Your task to perform on an android device: Go to Reddit.com Image 0: 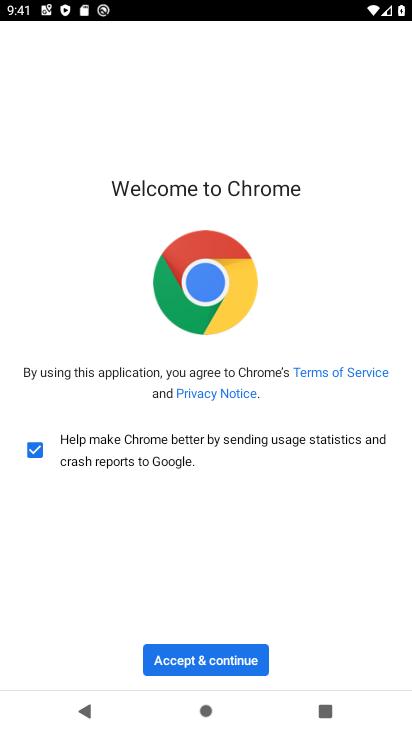
Step 0: press home button
Your task to perform on an android device: Go to Reddit.com Image 1: 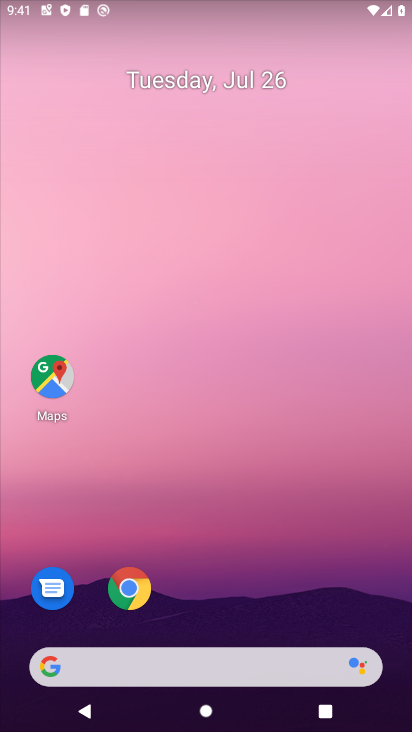
Step 1: drag from (199, 661) to (230, 631)
Your task to perform on an android device: Go to Reddit.com Image 2: 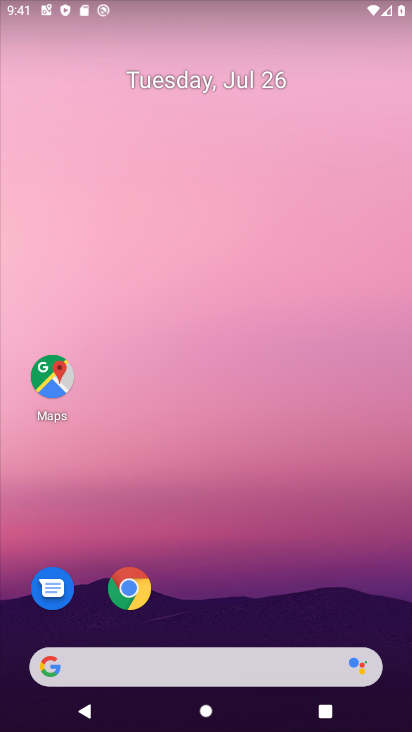
Step 2: click (130, 590)
Your task to perform on an android device: Go to Reddit.com Image 3: 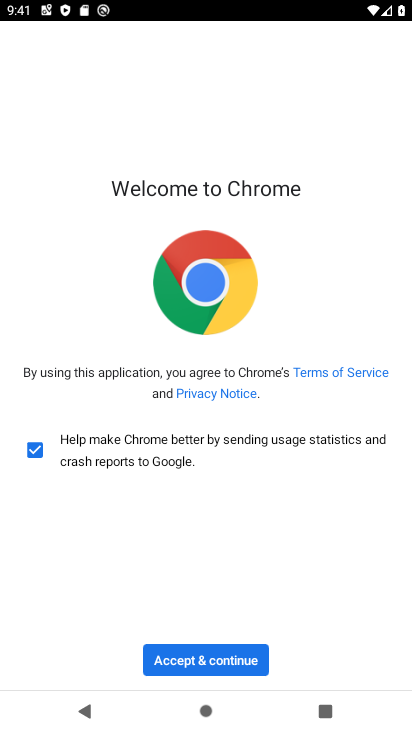
Step 3: click (187, 658)
Your task to perform on an android device: Go to Reddit.com Image 4: 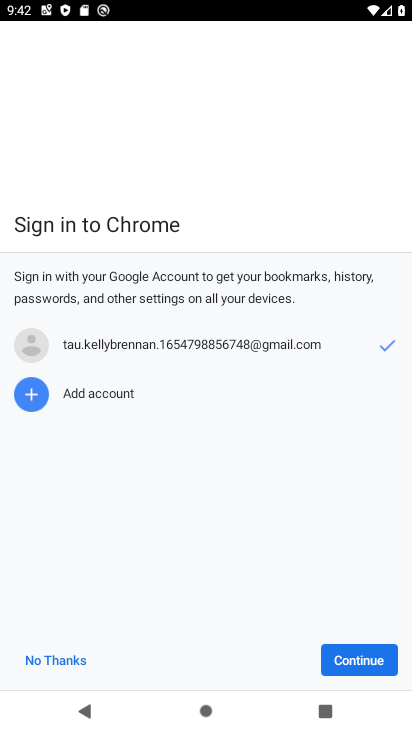
Step 4: click (349, 666)
Your task to perform on an android device: Go to Reddit.com Image 5: 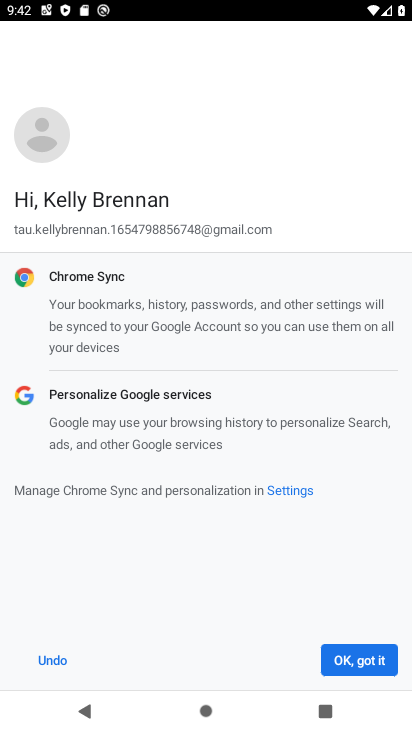
Step 5: click (349, 666)
Your task to perform on an android device: Go to Reddit.com Image 6: 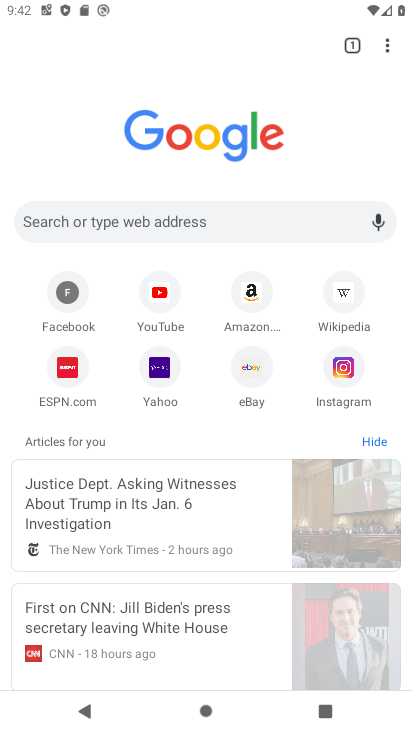
Step 6: click (215, 226)
Your task to perform on an android device: Go to Reddit.com Image 7: 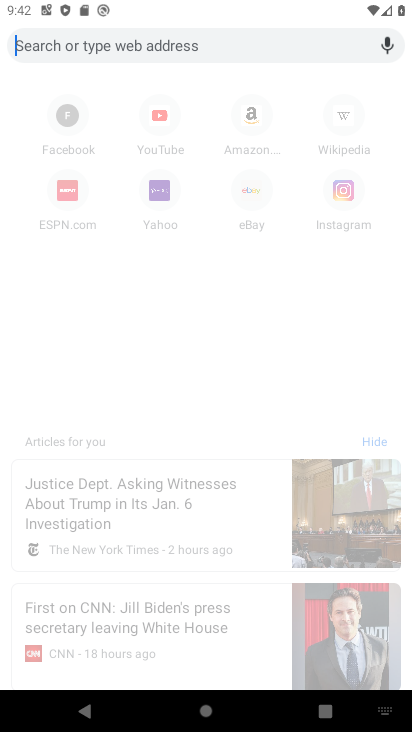
Step 7: type "Reddit.com"
Your task to perform on an android device: Go to Reddit.com Image 8: 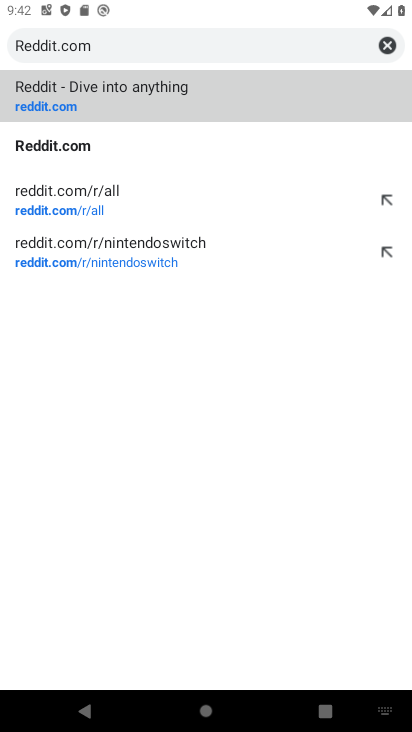
Step 8: click (85, 146)
Your task to perform on an android device: Go to Reddit.com Image 9: 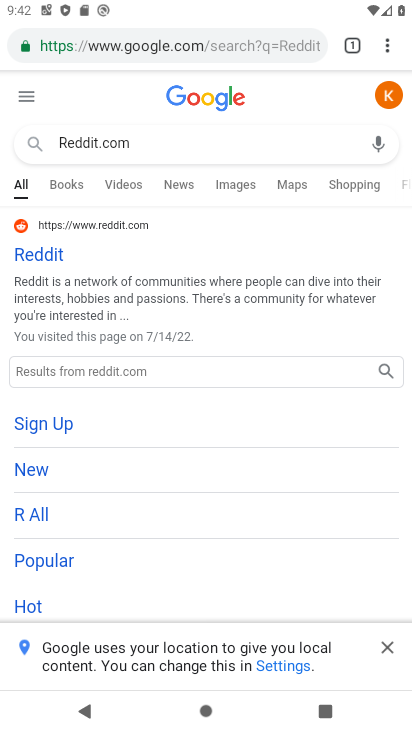
Step 9: click (52, 250)
Your task to perform on an android device: Go to Reddit.com Image 10: 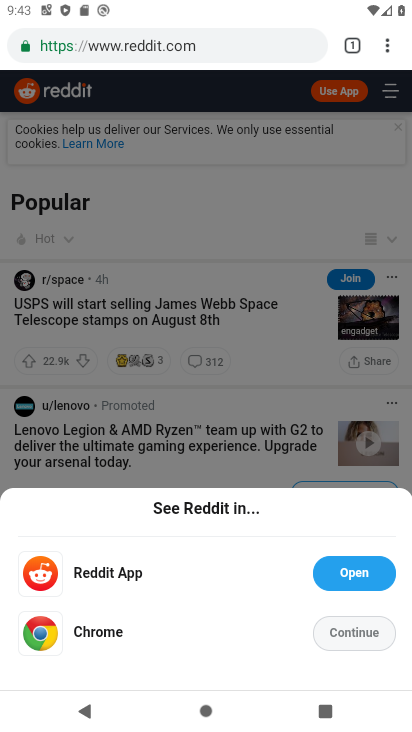
Step 10: click (360, 634)
Your task to perform on an android device: Go to Reddit.com Image 11: 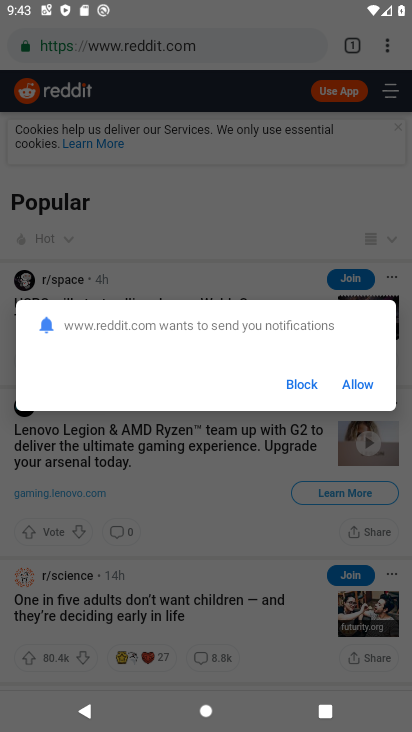
Step 11: click (374, 381)
Your task to perform on an android device: Go to Reddit.com Image 12: 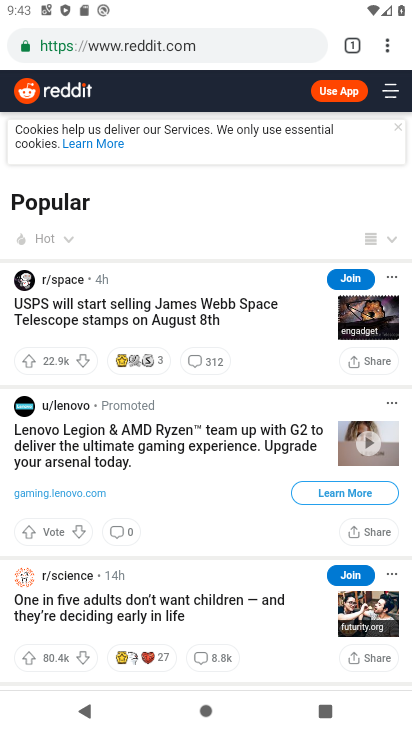
Step 12: task complete